Your task to perform on an android device: turn off javascript in the chrome app Image 0: 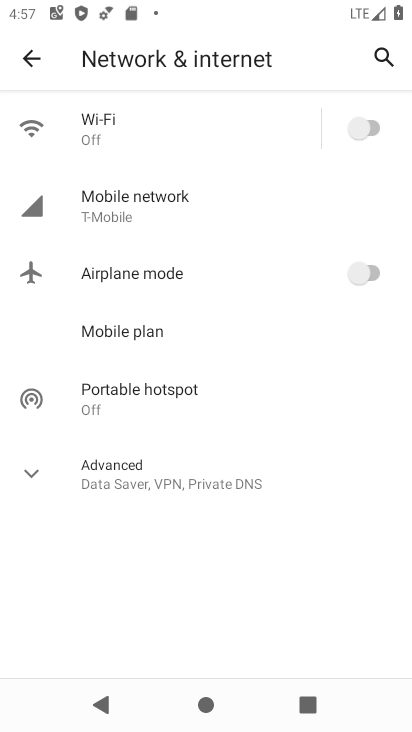
Step 0: press home button
Your task to perform on an android device: turn off javascript in the chrome app Image 1: 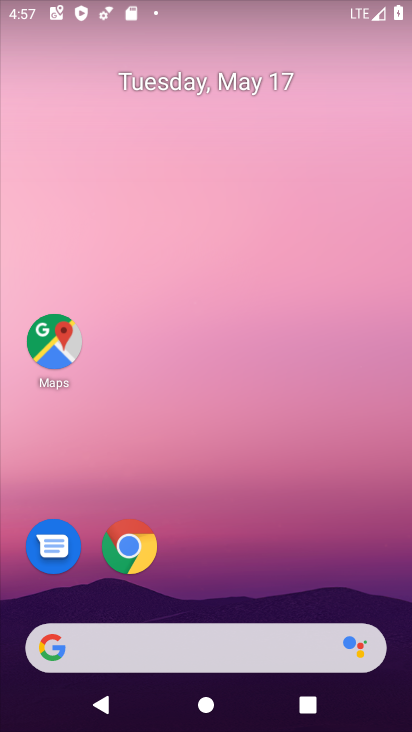
Step 1: click (123, 551)
Your task to perform on an android device: turn off javascript in the chrome app Image 2: 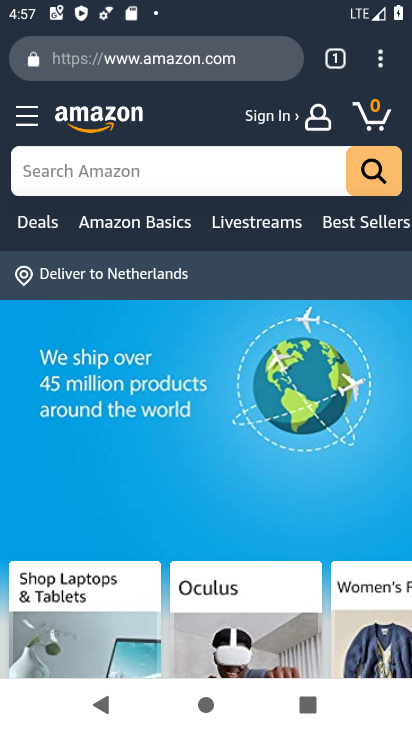
Step 2: click (380, 67)
Your task to perform on an android device: turn off javascript in the chrome app Image 3: 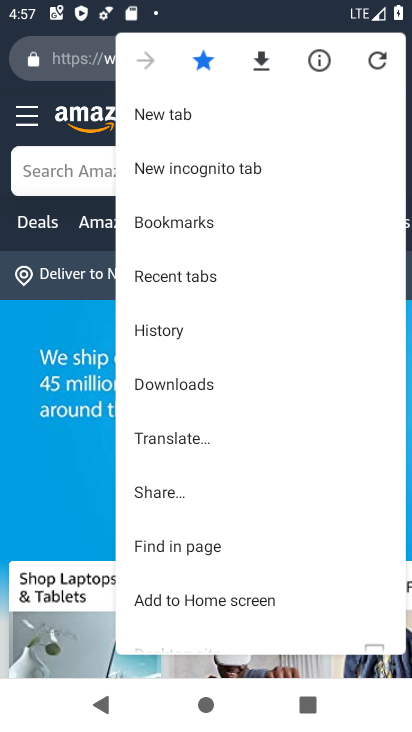
Step 3: drag from (209, 584) to (246, 126)
Your task to perform on an android device: turn off javascript in the chrome app Image 4: 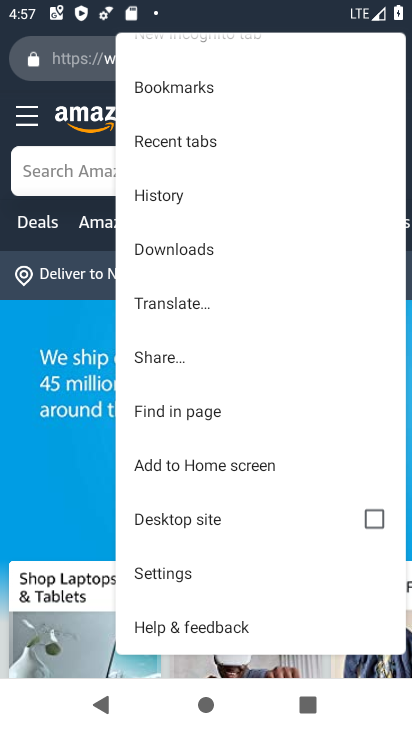
Step 4: click (188, 575)
Your task to perform on an android device: turn off javascript in the chrome app Image 5: 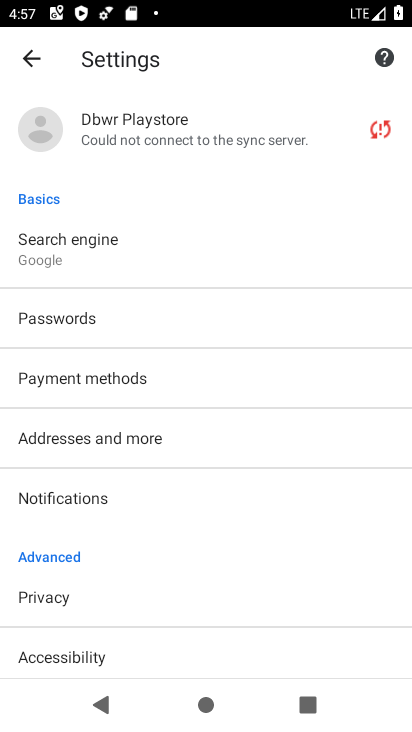
Step 5: drag from (117, 642) to (236, 185)
Your task to perform on an android device: turn off javascript in the chrome app Image 6: 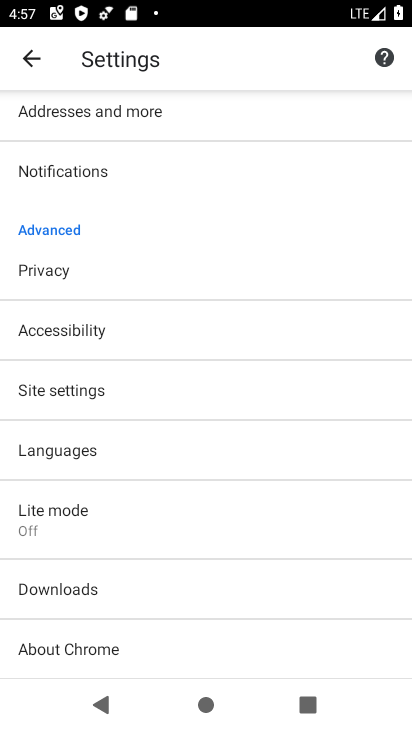
Step 6: drag from (125, 623) to (174, 163)
Your task to perform on an android device: turn off javascript in the chrome app Image 7: 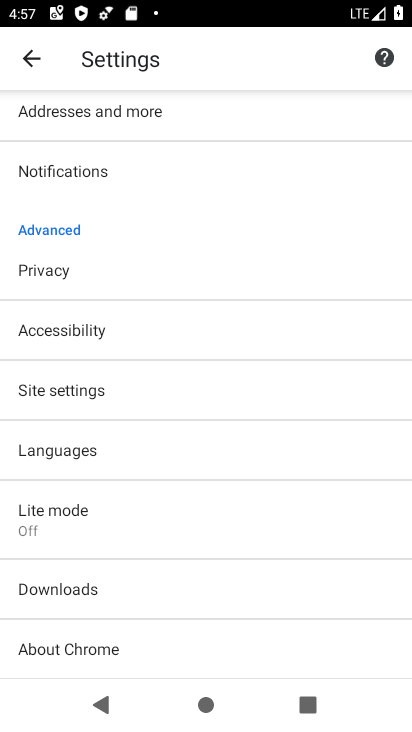
Step 7: click (50, 400)
Your task to perform on an android device: turn off javascript in the chrome app Image 8: 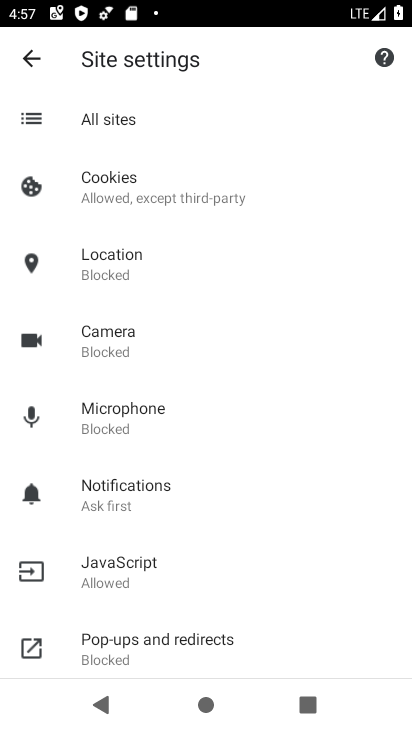
Step 8: click (140, 581)
Your task to perform on an android device: turn off javascript in the chrome app Image 9: 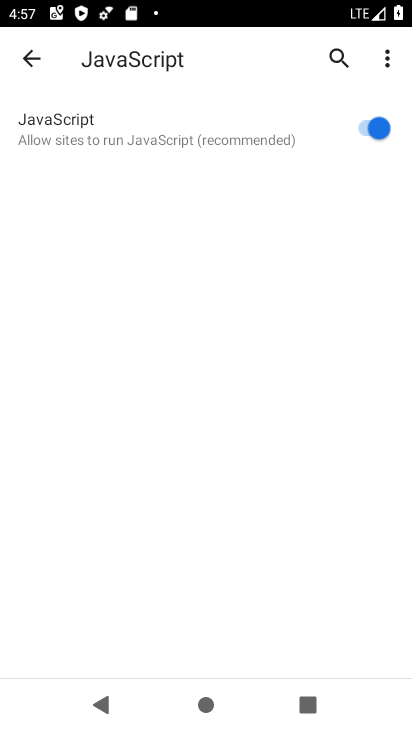
Step 9: click (375, 134)
Your task to perform on an android device: turn off javascript in the chrome app Image 10: 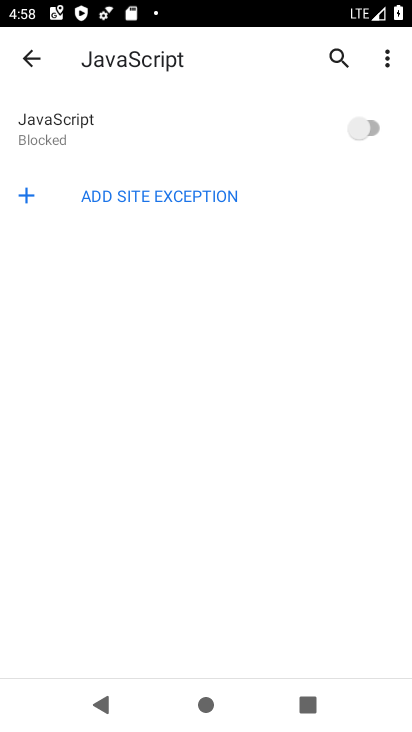
Step 10: task complete